Your task to perform on an android device: Search for Italian restaurants on Maps Image 0: 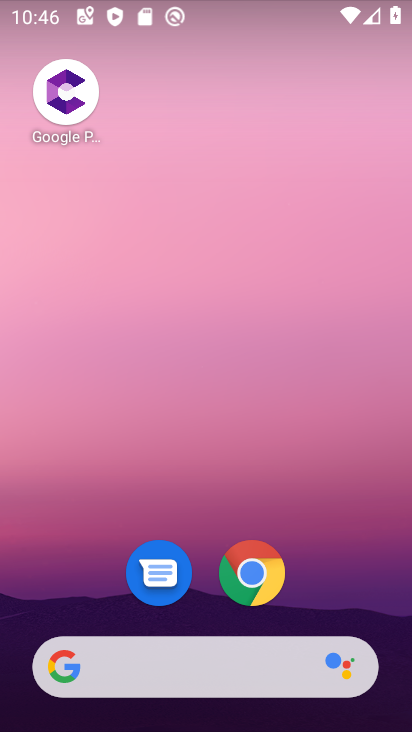
Step 0: drag from (207, 598) to (316, 17)
Your task to perform on an android device: Search for Italian restaurants on Maps Image 1: 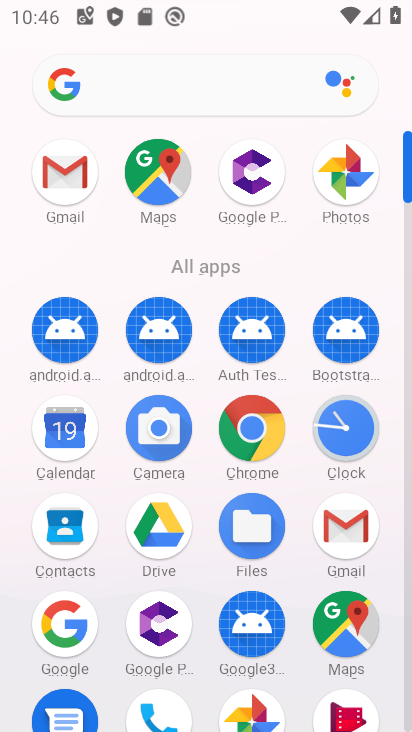
Step 1: click (168, 169)
Your task to perform on an android device: Search for Italian restaurants on Maps Image 2: 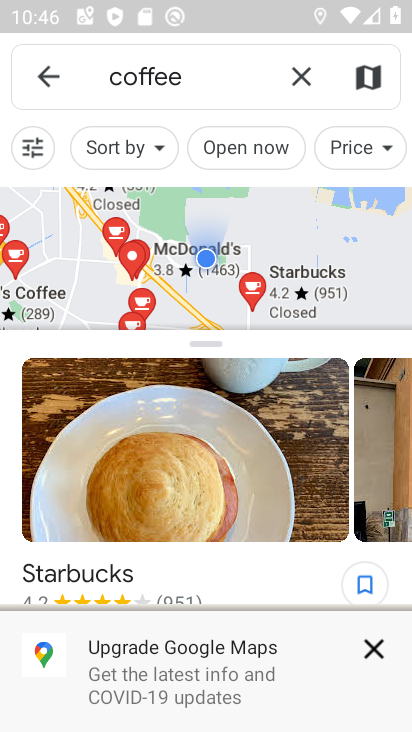
Step 2: click (307, 72)
Your task to perform on an android device: Search for Italian restaurants on Maps Image 3: 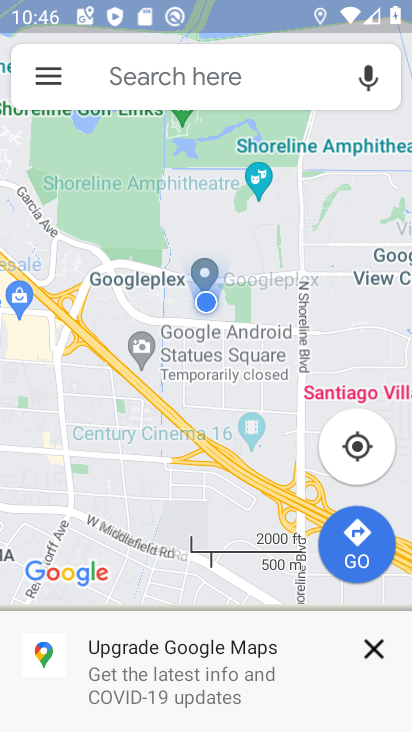
Step 3: click (173, 81)
Your task to perform on an android device: Search for Italian restaurants on Maps Image 4: 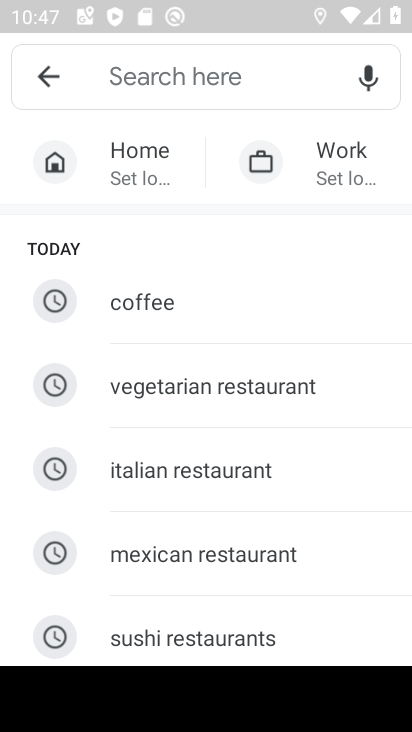
Step 4: click (143, 465)
Your task to perform on an android device: Search for Italian restaurants on Maps Image 5: 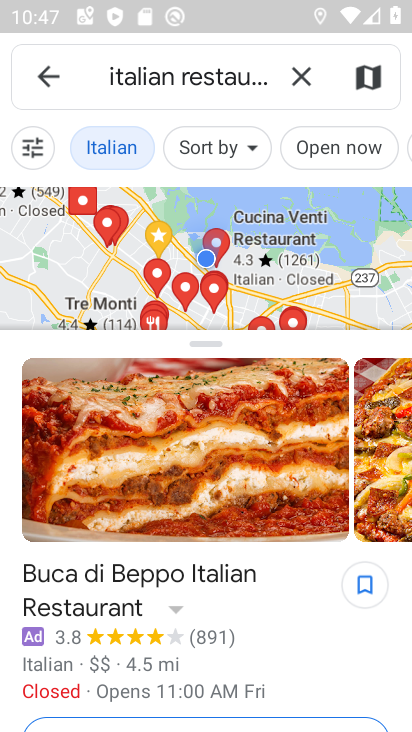
Step 5: task complete